Your task to perform on an android device: search for starred emails in the gmail app Image 0: 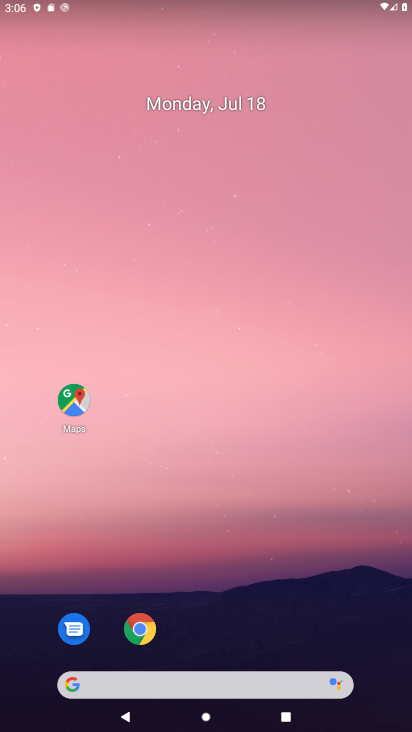
Step 0: drag from (257, 637) to (286, 173)
Your task to perform on an android device: search for starred emails in the gmail app Image 1: 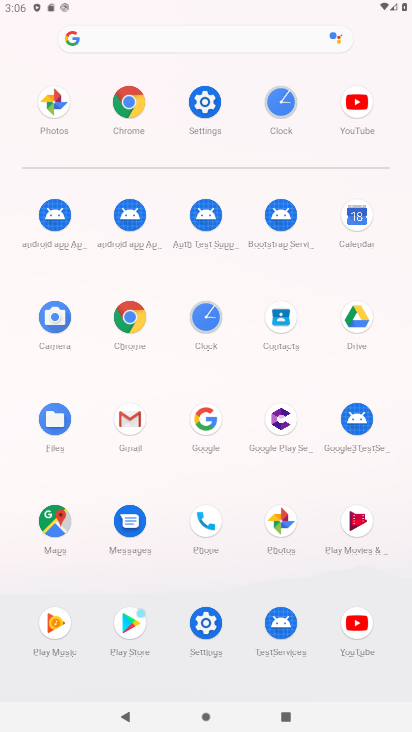
Step 1: click (124, 425)
Your task to perform on an android device: search for starred emails in the gmail app Image 2: 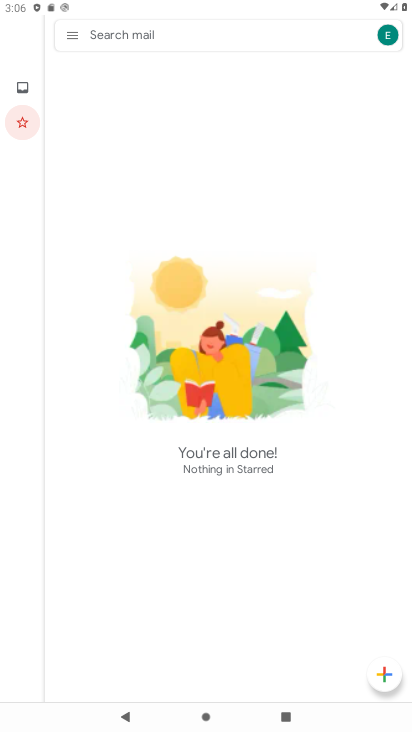
Step 2: click (19, 122)
Your task to perform on an android device: search for starred emails in the gmail app Image 3: 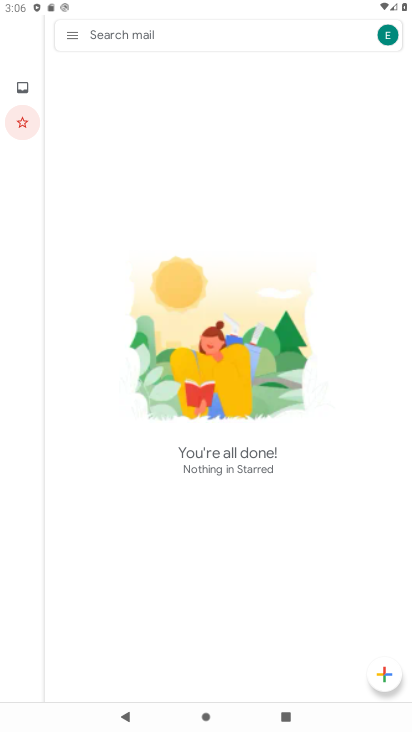
Step 3: click (75, 41)
Your task to perform on an android device: search for starred emails in the gmail app Image 4: 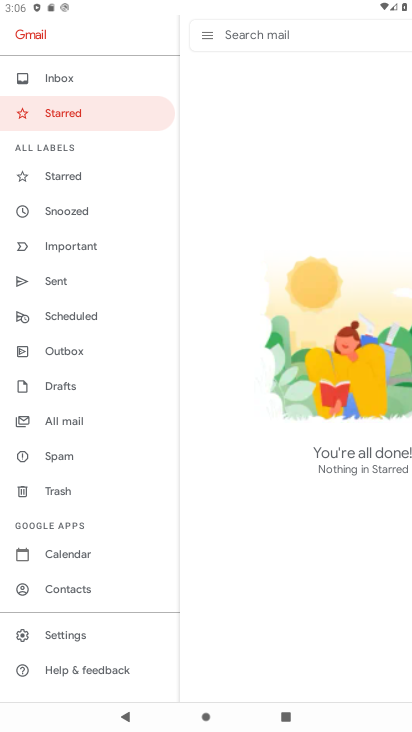
Step 4: click (75, 119)
Your task to perform on an android device: search for starred emails in the gmail app Image 5: 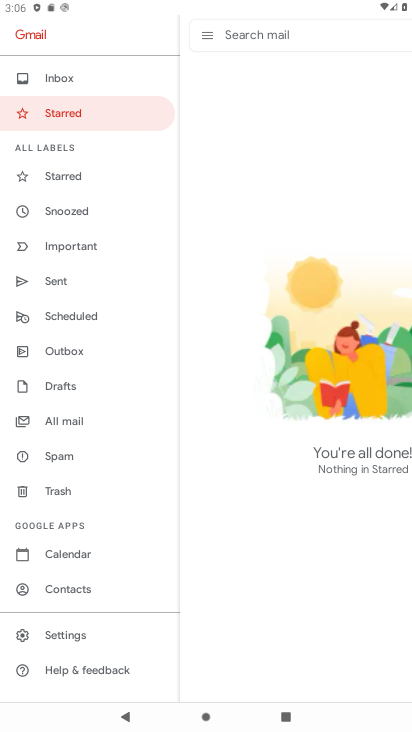
Step 5: task complete